Your task to perform on an android device: open app "Roku - Official Remote Control" (install if not already installed) Image 0: 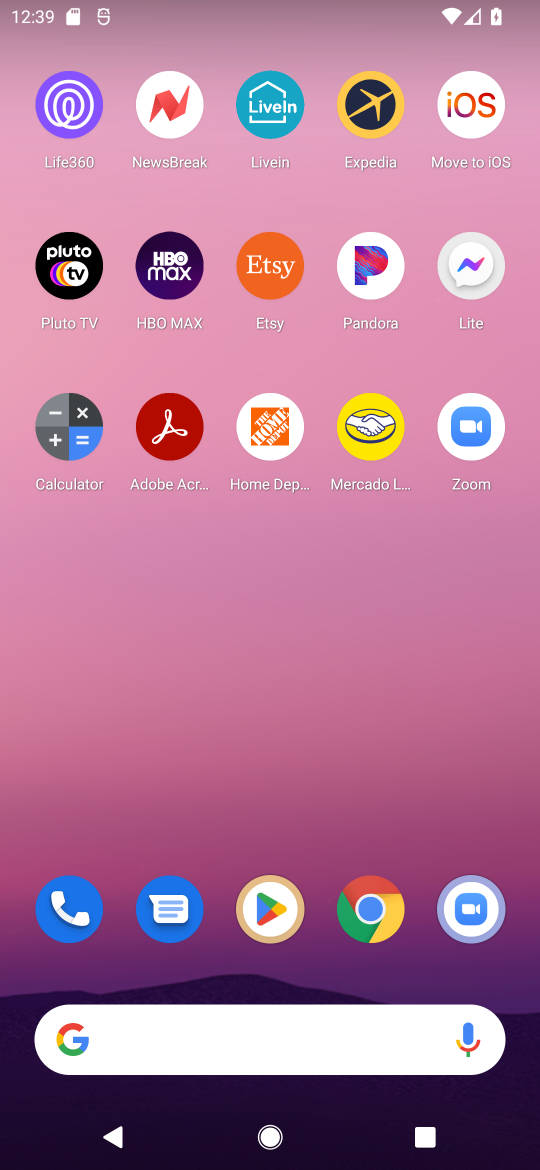
Step 0: press home button
Your task to perform on an android device: open app "Roku - Official Remote Control" (install if not already installed) Image 1: 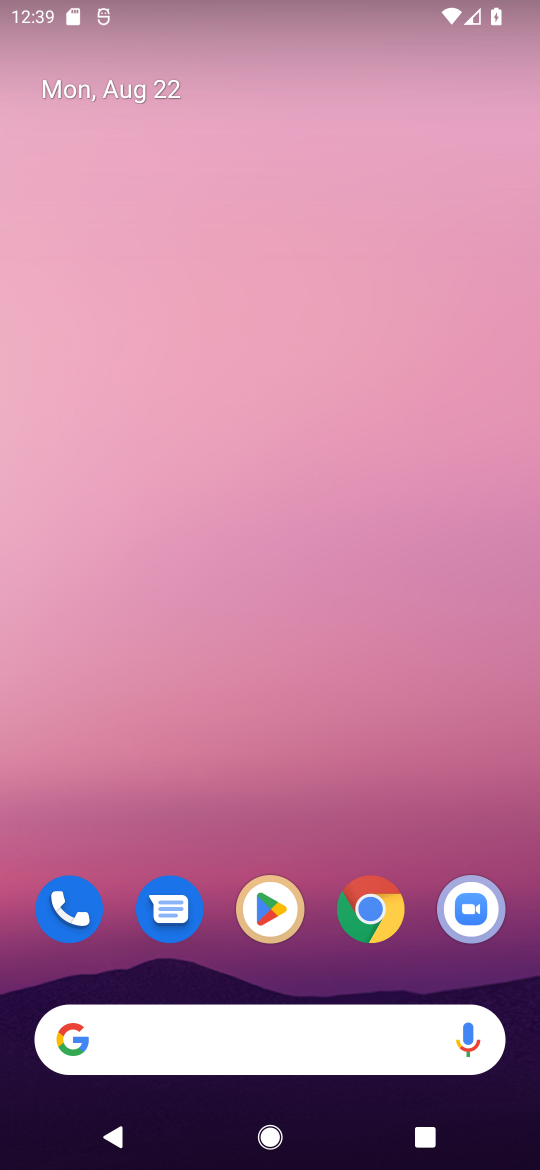
Step 1: click (268, 897)
Your task to perform on an android device: open app "Roku - Official Remote Control" (install if not already installed) Image 2: 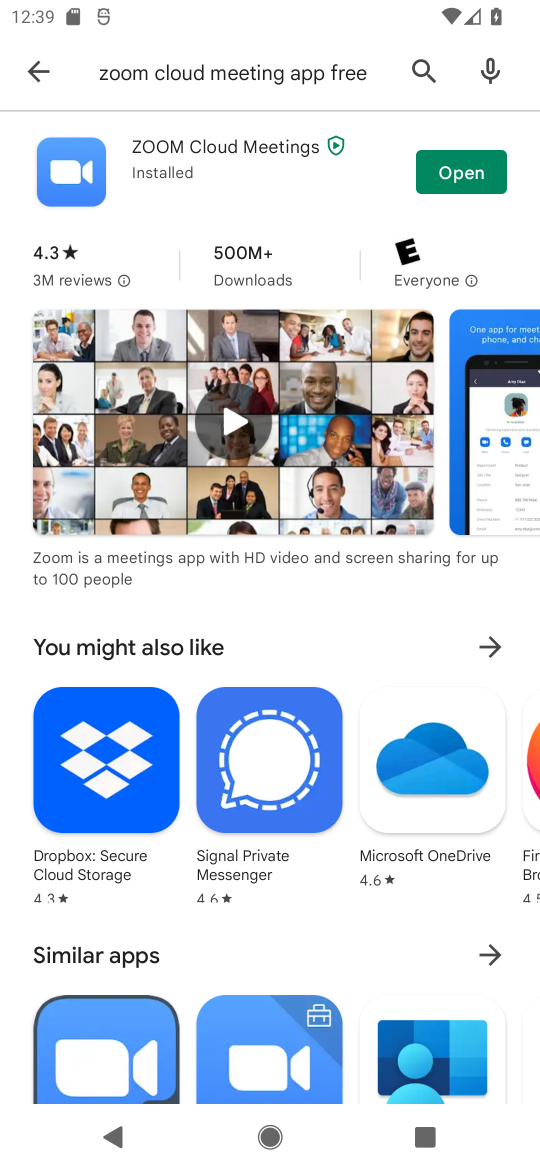
Step 2: click (429, 69)
Your task to perform on an android device: open app "Roku - Official Remote Control" (install if not already installed) Image 3: 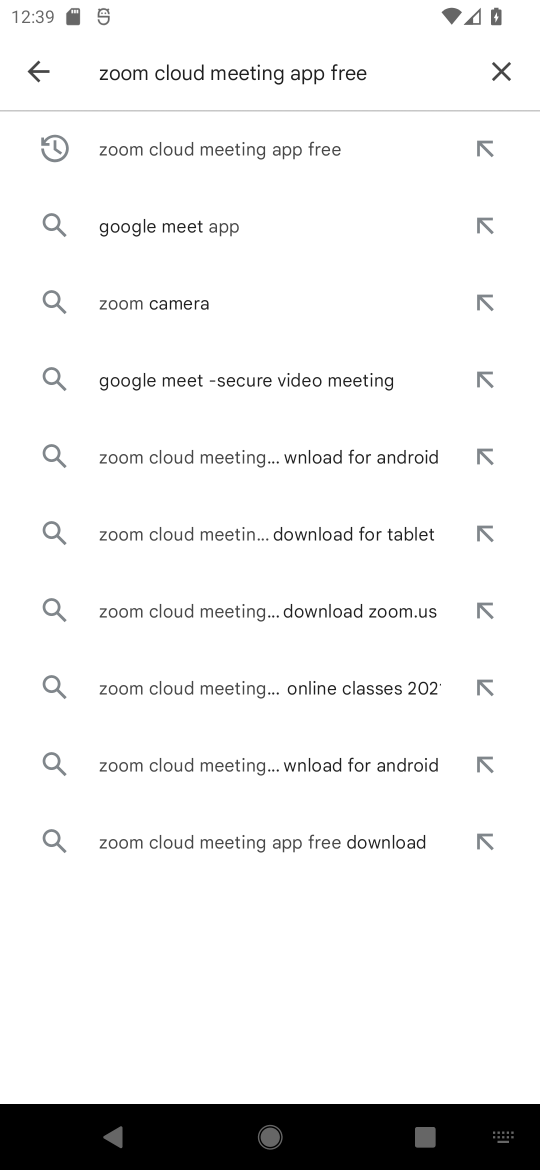
Step 3: click (497, 59)
Your task to perform on an android device: open app "Roku - Official Remote Control" (install if not already installed) Image 4: 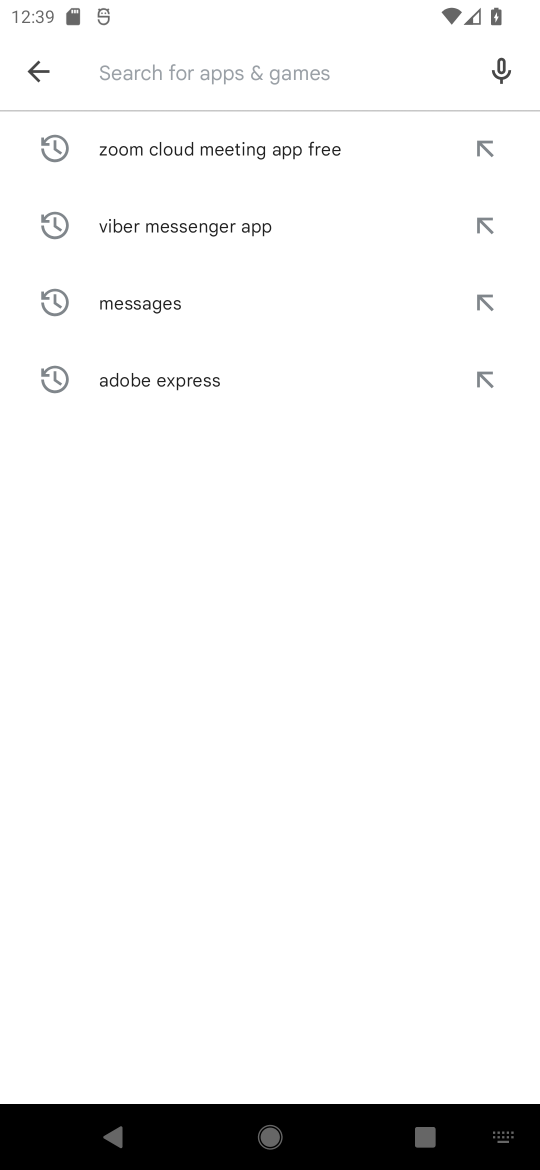
Step 4: click (278, 77)
Your task to perform on an android device: open app "Roku - Official Remote Control" (install if not already installed) Image 5: 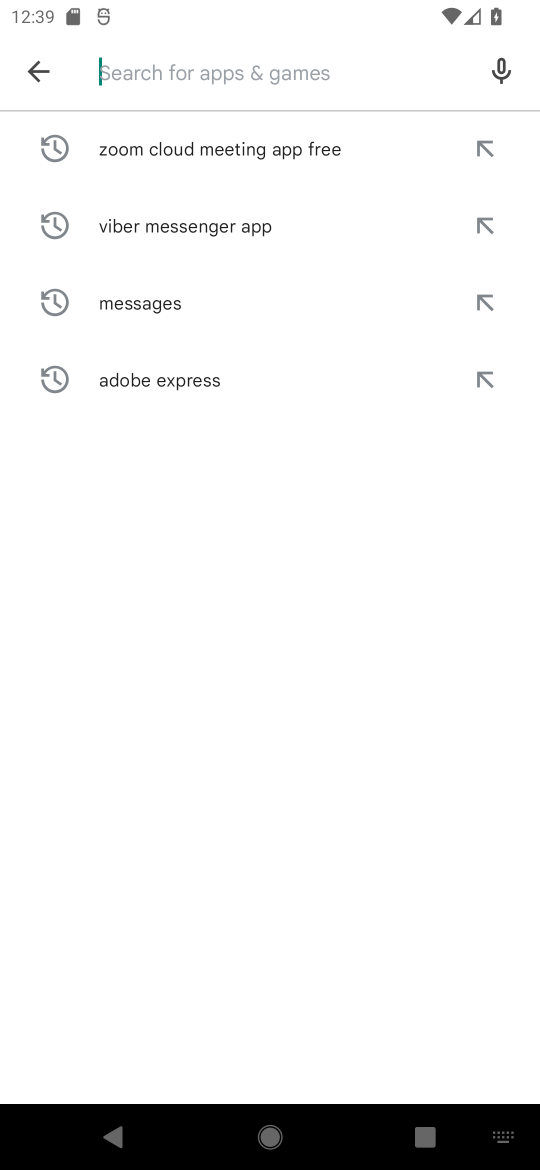
Step 5: click (278, 77)
Your task to perform on an android device: open app "Roku - Official Remote Control" (install if not already installed) Image 6: 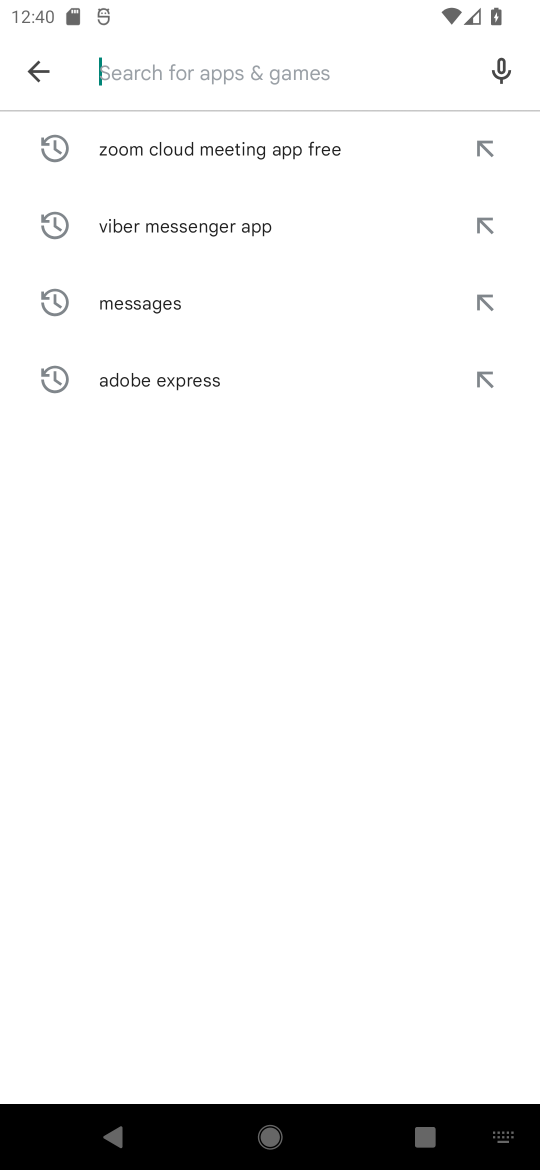
Step 6: type "roku "
Your task to perform on an android device: open app "Roku - Official Remote Control" (install if not already installed) Image 7: 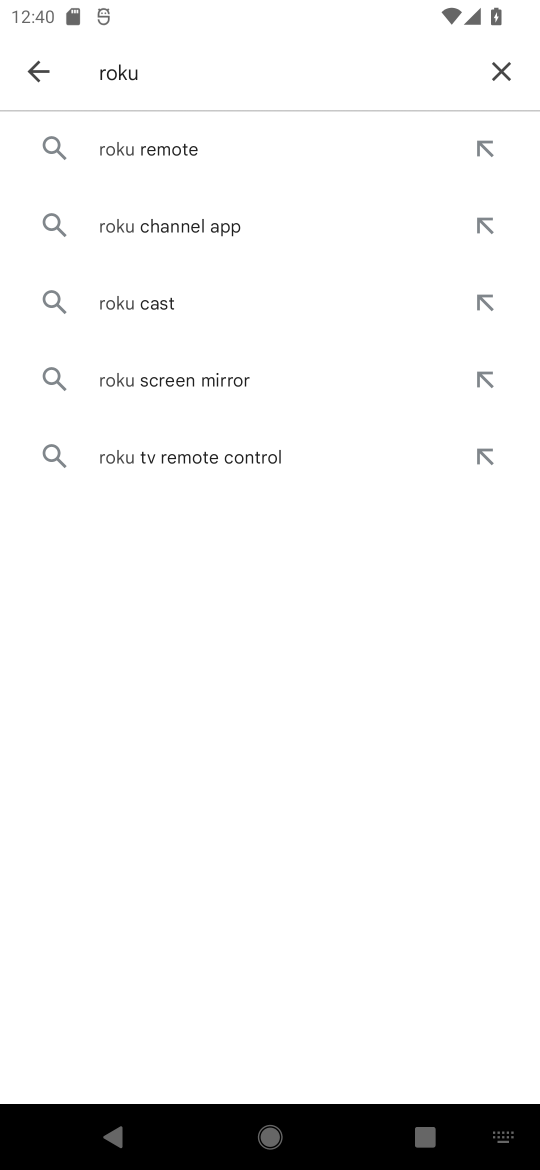
Step 7: click (210, 152)
Your task to perform on an android device: open app "Roku - Official Remote Control" (install if not already installed) Image 8: 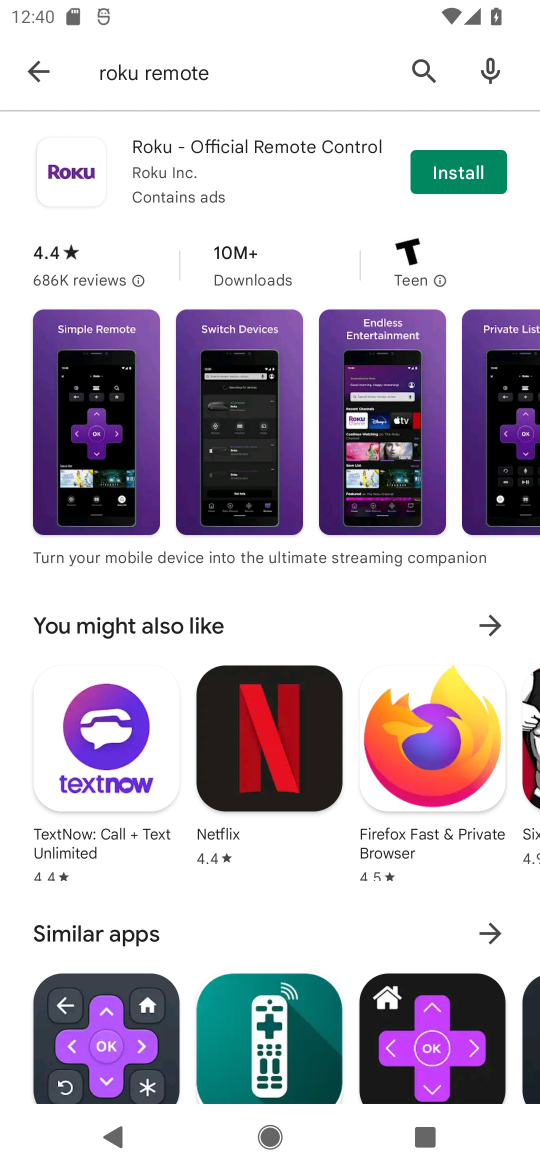
Step 8: click (448, 174)
Your task to perform on an android device: open app "Roku - Official Remote Control" (install if not already installed) Image 9: 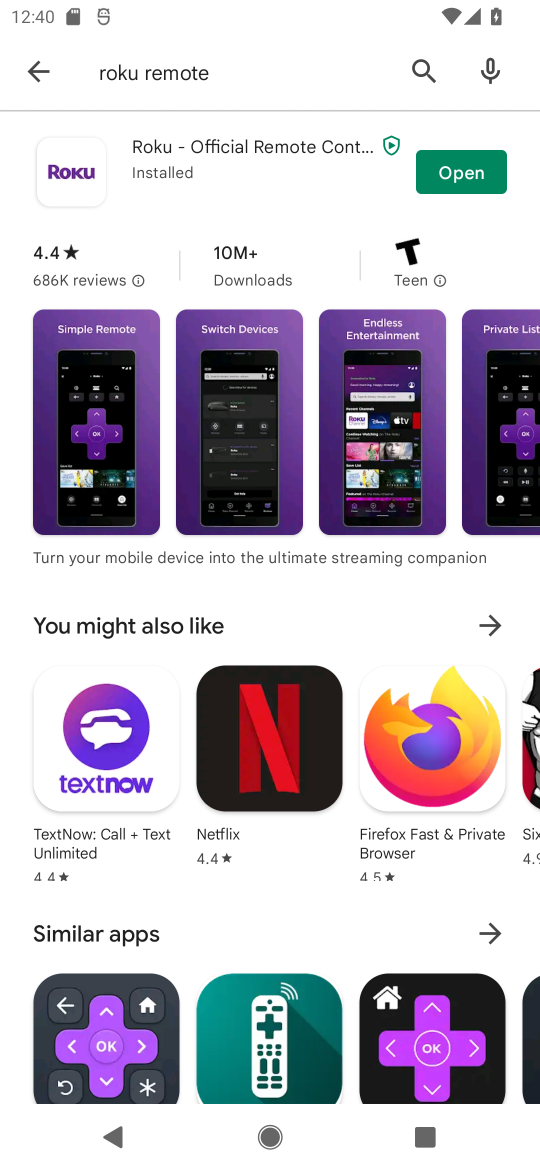
Step 9: click (443, 175)
Your task to perform on an android device: open app "Roku - Official Remote Control" (install if not already installed) Image 10: 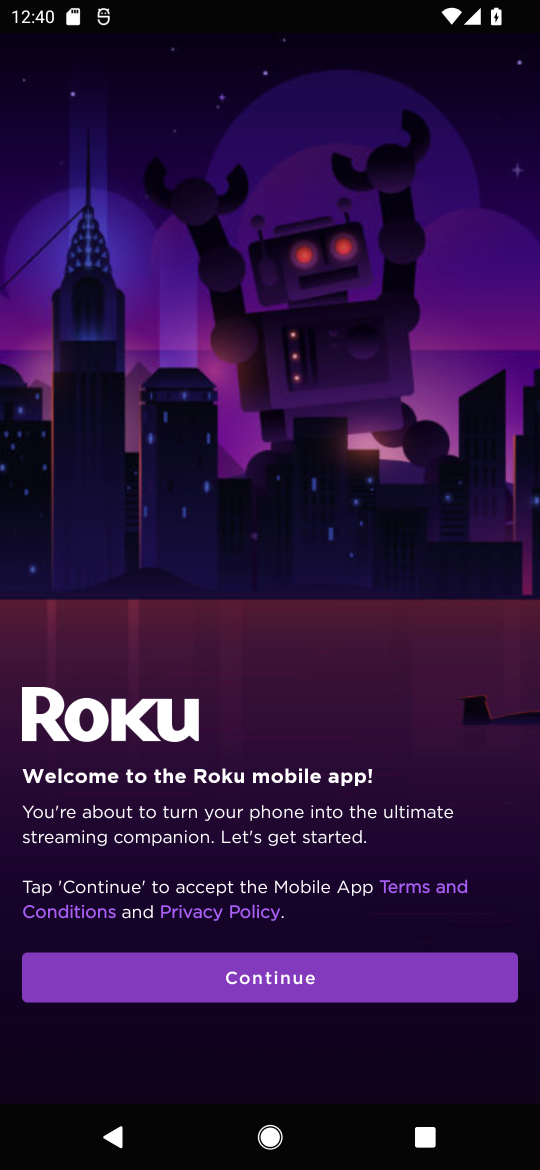
Step 10: task complete